Your task to perform on an android device: remove spam from my inbox in the gmail app Image 0: 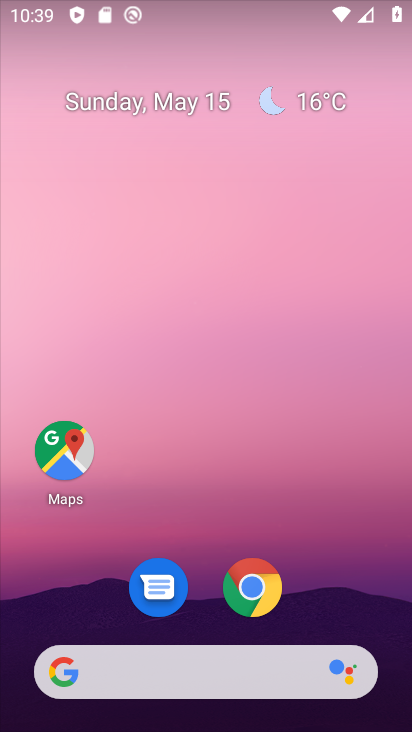
Step 0: drag from (308, 530) to (305, 64)
Your task to perform on an android device: remove spam from my inbox in the gmail app Image 1: 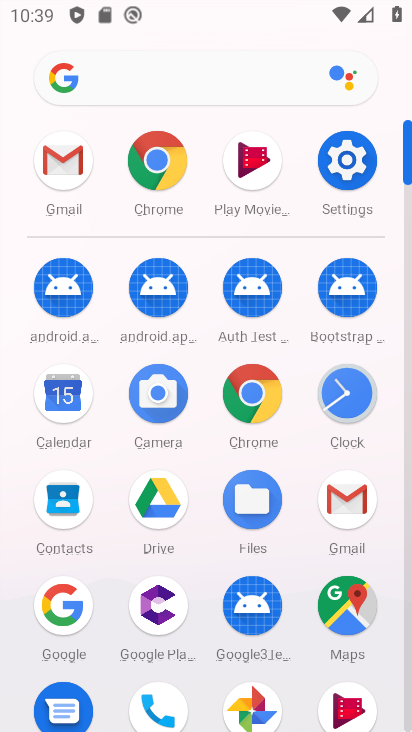
Step 1: click (348, 156)
Your task to perform on an android device: remove spam from my inbox in the gmail app Image 2: 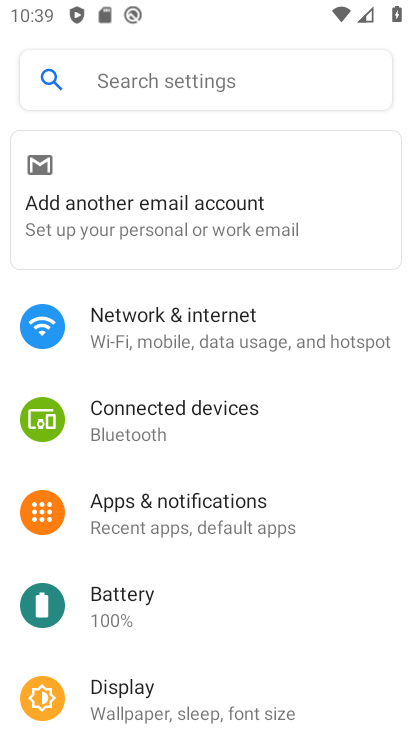
Step 2: press back button
Your task to perform on an android device: remove spam from my inbox in the gmail app Image 3: 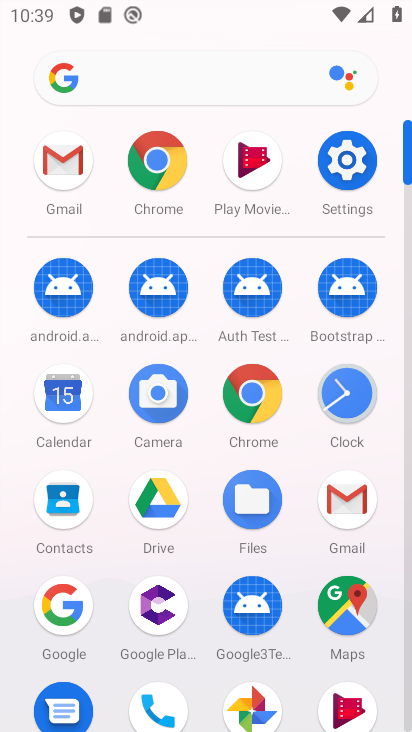
Step 3: click (348, 493)
Your task to perform on an android device: remove spam from my inbox in the gmail app Image 4: 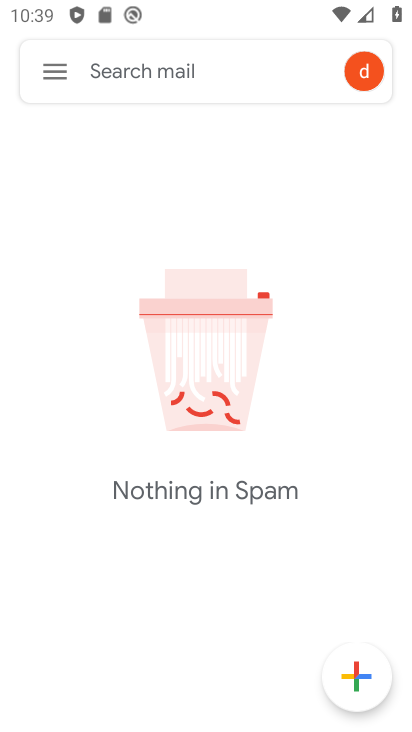
Step 4: click (56, 86)
Your task to perform on an android device: remove spam from my inbox in the gmail app Image 5: 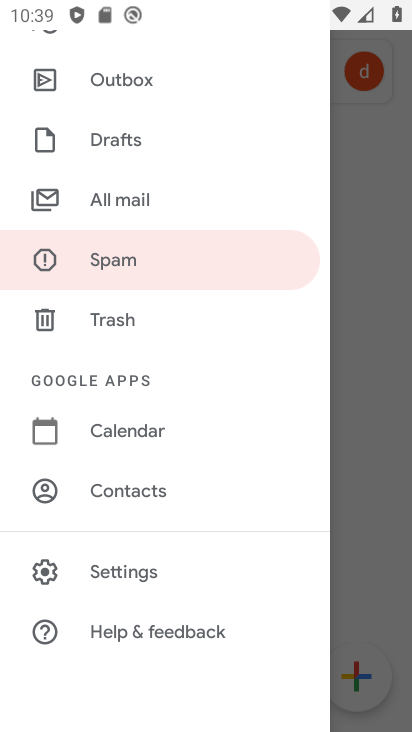
Step 5: click (155, 264)
Your task to perform on an android device: remove spam from my inbox in the gmail app Image 6: 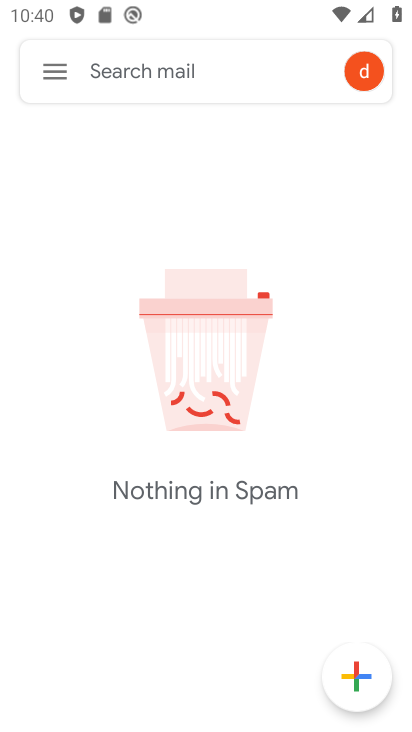
Step 6: task complete